Your task to perform on an android device: Open eBay Image 0: 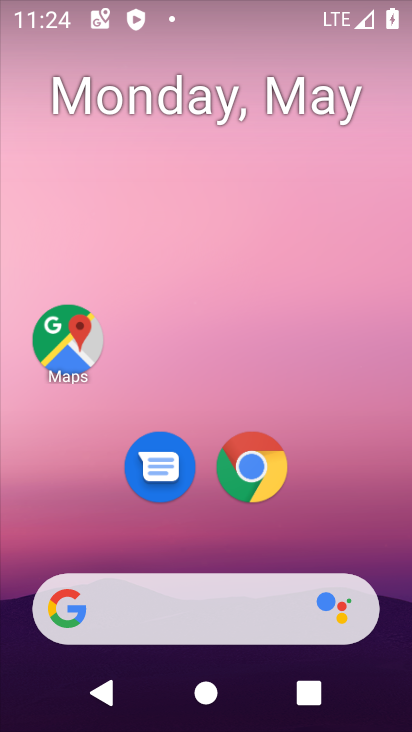
Step 0: click (260, 458)
Your task to perform on an android device: Open eBay Image 1: 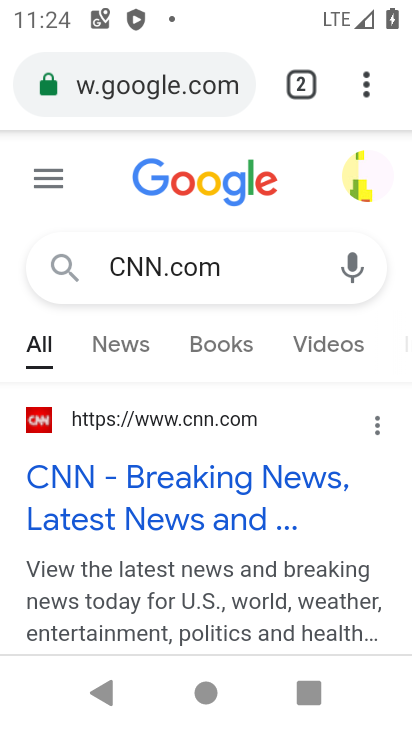
Step 1: click (242, 84)
Your task to perform on an android device: Open eBay Image 2: 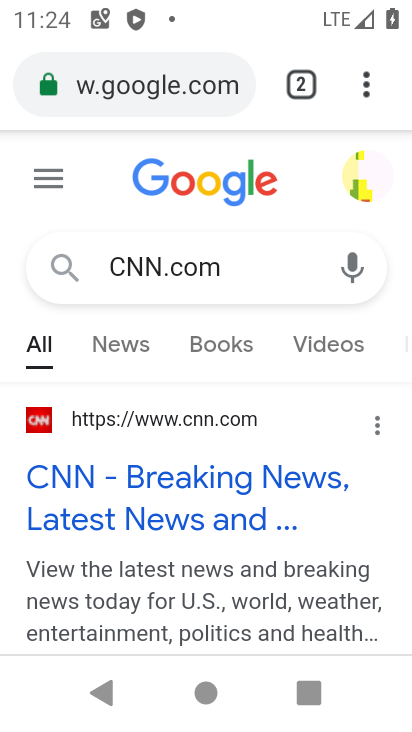
Step 2: click (242, 85)
Your task to perform on an android device: Open eBay Image 3: 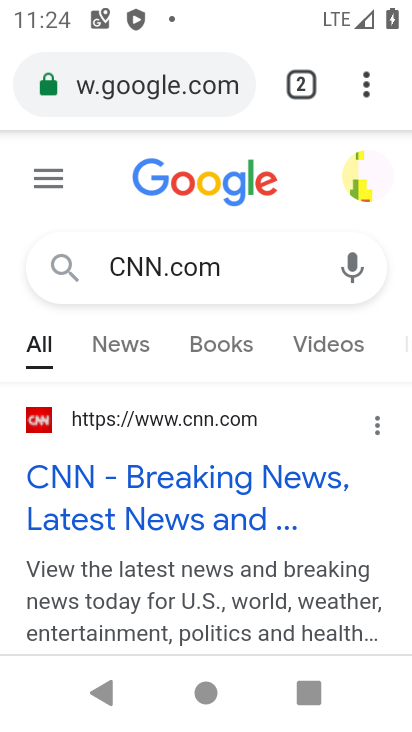
Step 3: click (242, 85)
Your task to perform on an android device: Open eBay Image 4: 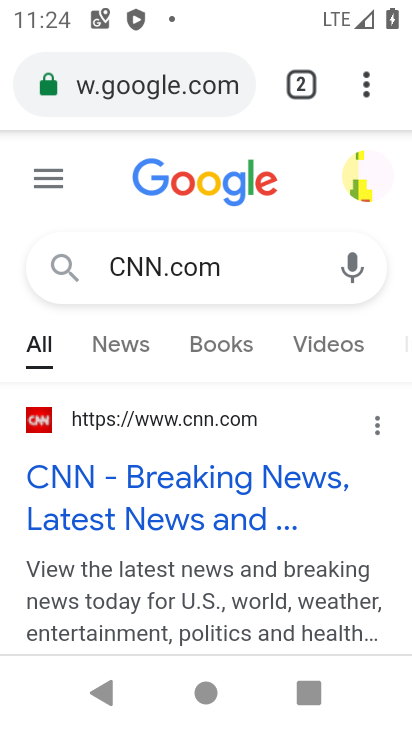
Step 4: click (239, 83)
Your task to perform on an android device: Open eBay Image 5: 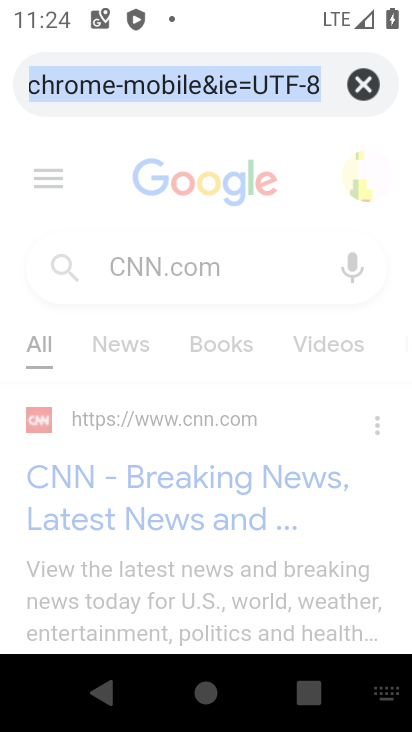
Step 5: click (347, 87)
Your task to perform on an android device: Open eBay Image 6: 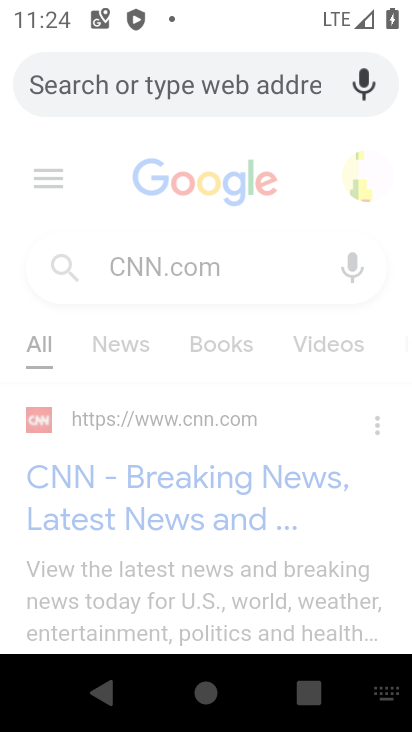
Step 6: type "eBay"
Your task to perform on an android device: Open eBay Image 7: 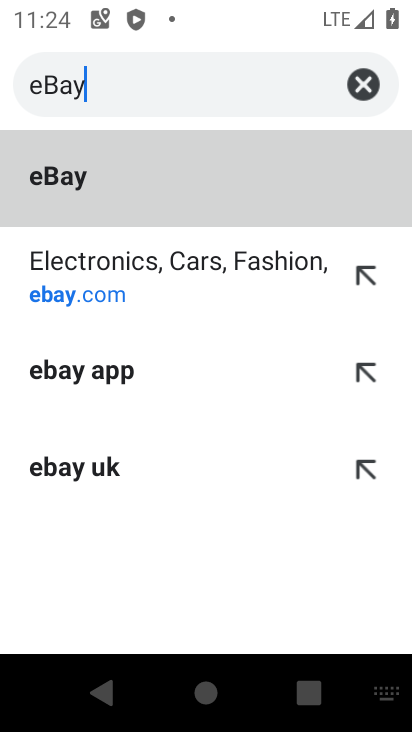
Step 7: click (73, 167)
Your task to perform on an android device: Open eBay Image 8: 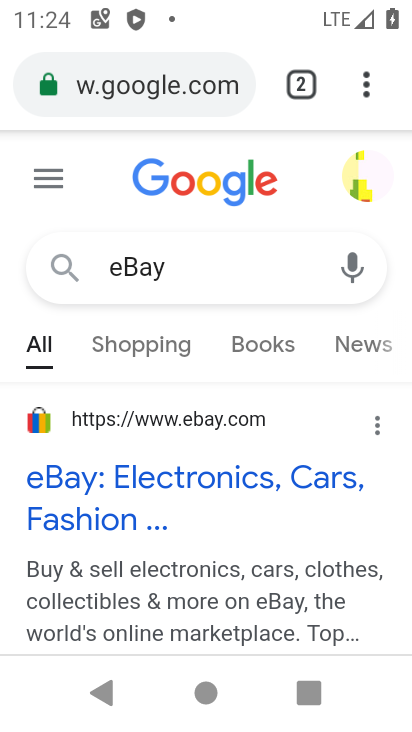
Step 8: task complete